Your task to perform on an android device: check google app version Image 0: 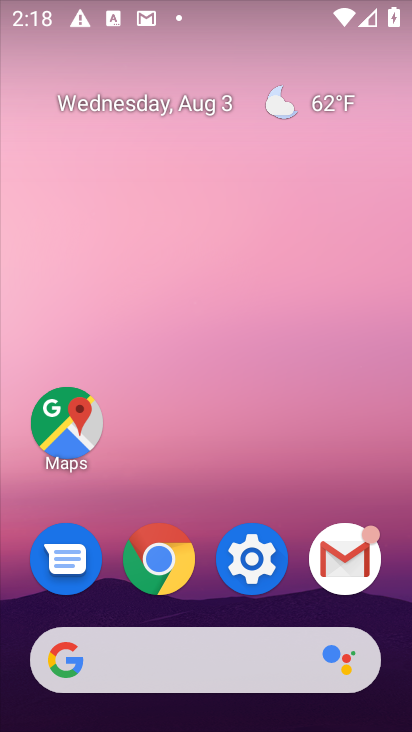
Step 0: press home button
Your task to perform on an android device: check google app version Image 1: 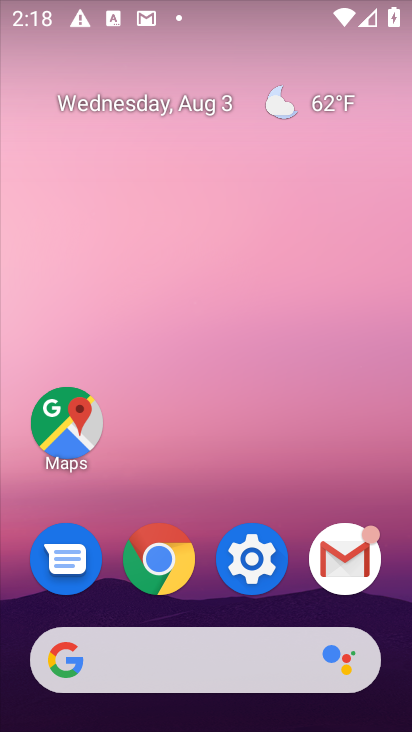
Step 1: click (156, 568)
Your task to perform on an android device: check google app version Image 2: 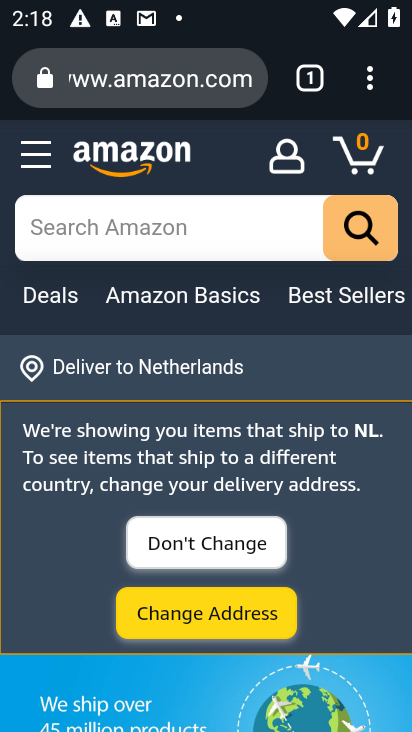
Step 2: click (367, 76)
Your task to perform on an android device: check google app version Image 3: 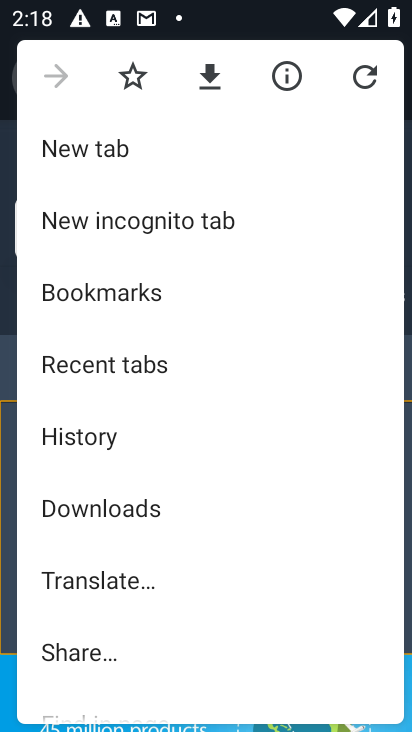
Step 3: drag from (135, 620) to (142, 354)
Your task to perform on an android device: check google app version Image 4: 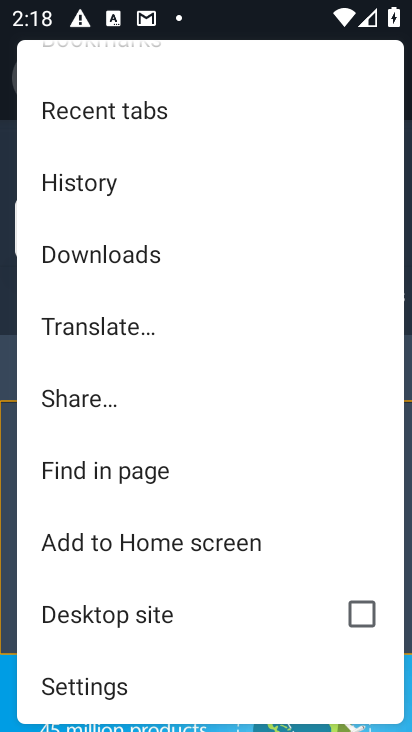
Step 4: click (118, 684)
Your task to perform on an android device: check google app version Image 5: 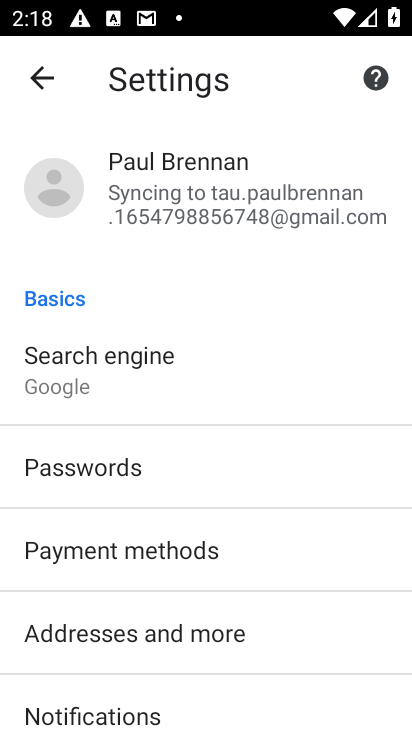
Step 5: drag from (100, 672) to (186, 231)
Your task to perform on an android device: check google app version Image 6: 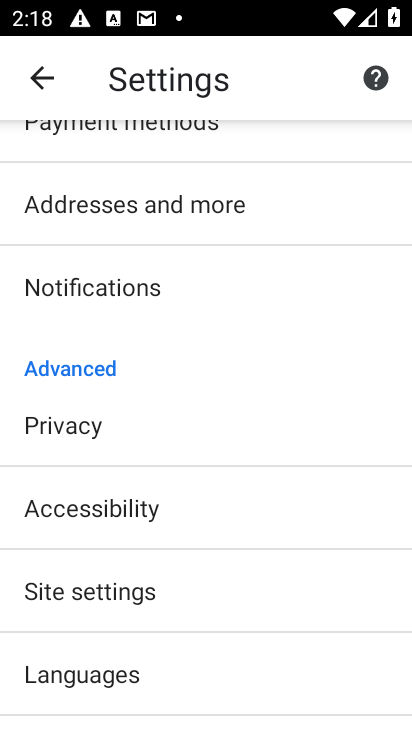
Step 6: drag from (132, 564) to (179, 260)
Your task to perform on an android device: check google app version Image 7: 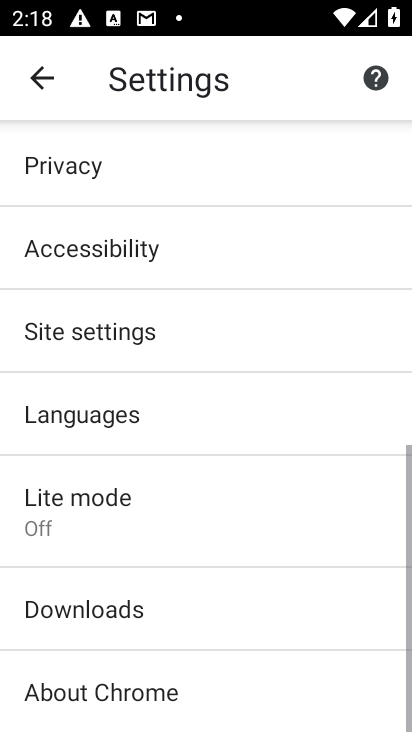
Step 7: click (134, 688)
Your task to perform on an android device: check google app version Image 8: 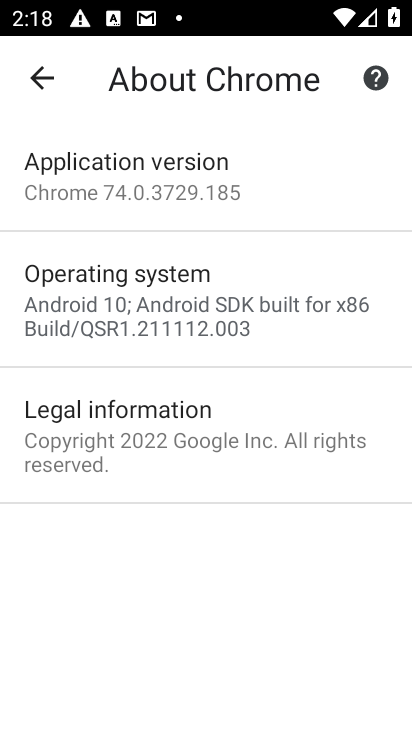
Step 8: click (122, 180)
Your task to perform on an android device: check google app version Image 9: 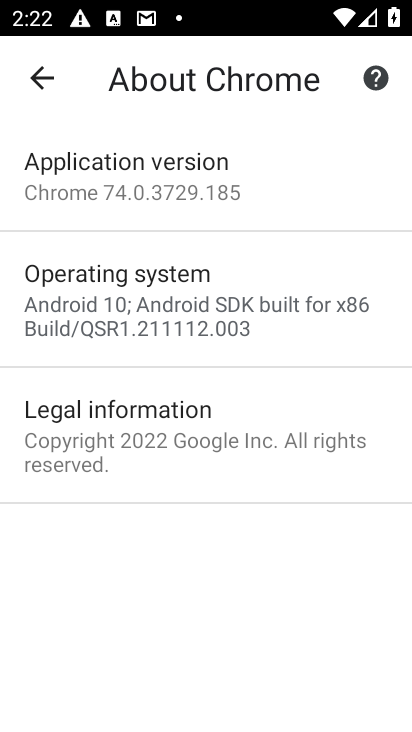
Step 9: task complete